Your task to perform on an android device: open app "Skype" (install if not already installed) and go to login screen Image 0: 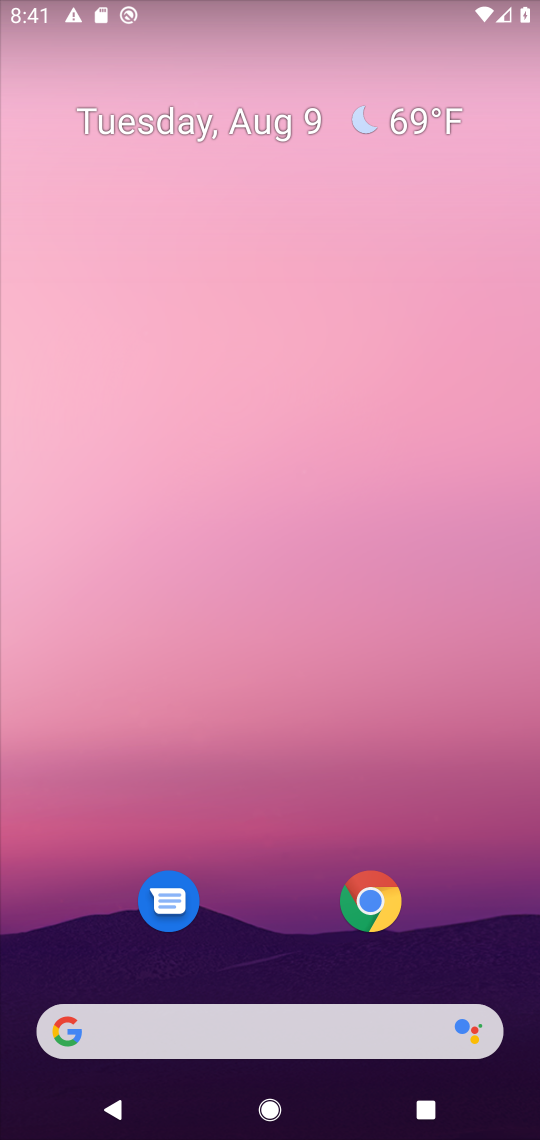
Step 0: drag from (207, 1029) to (338, 237)
Your task to perform on an android device: open app "Skype" (install if not already installed) and go to login screen Image 1: 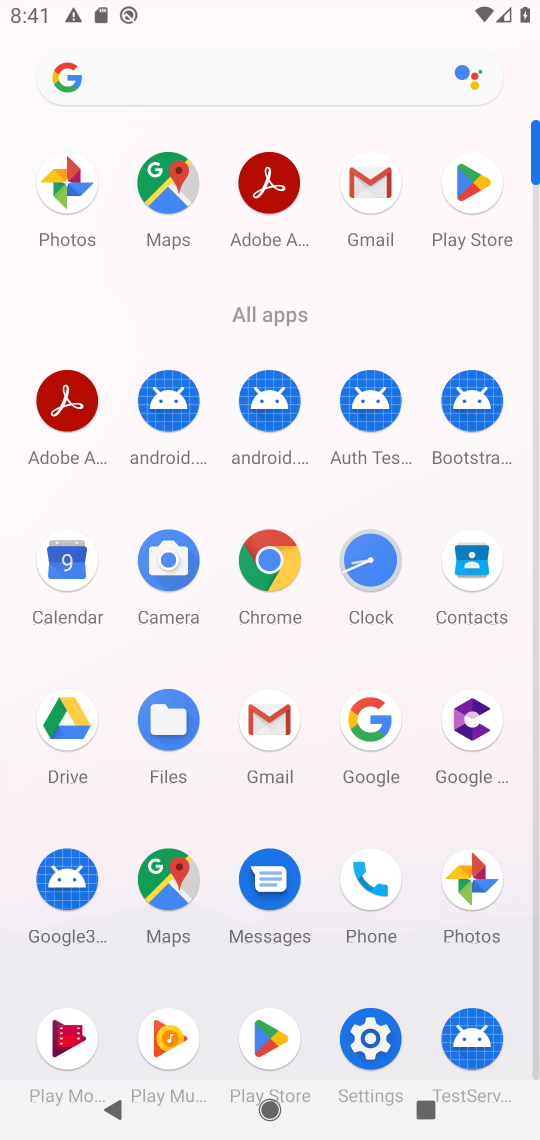
Step 1: click (268, 1028)
Your task to perform on an android device: open app "Skype" (install if not already installed) and go to login screen Image 2: 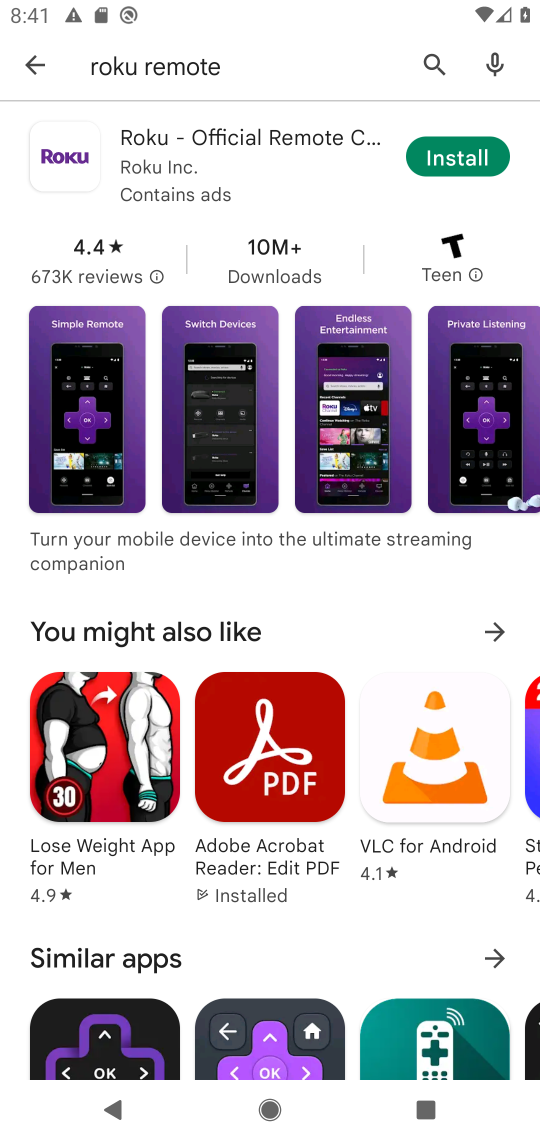
Step 2: click (36, 66)
Your task to perform on an android device: open app "Skype" (install if not already installed) and go to login screen Image 3: 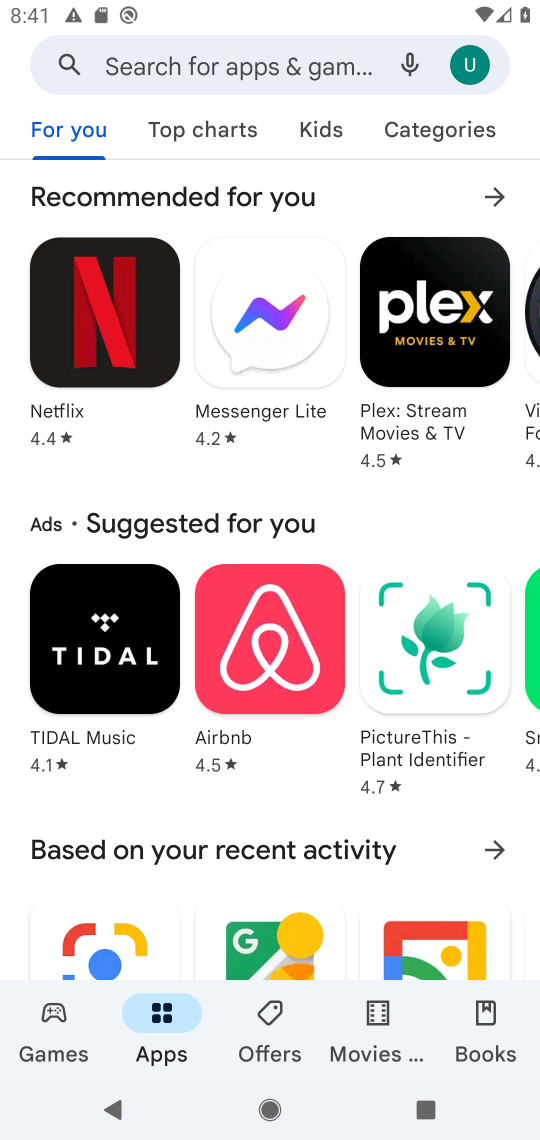
Step 3: click (334, 49)
Your task to perform on an android device: open app "Skype" (install if not already installed) and go to login screen Image 4: 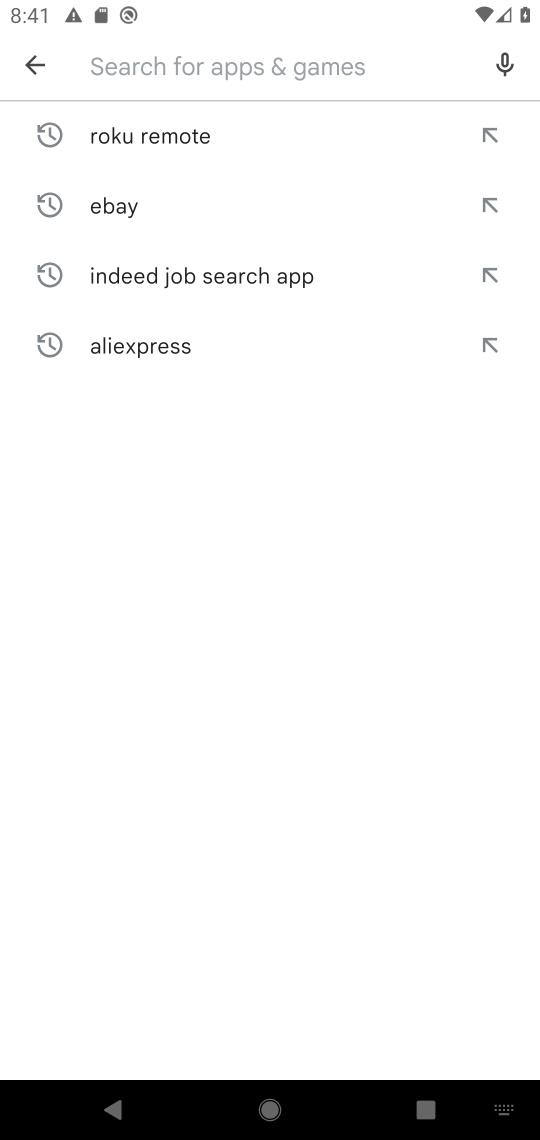
Step 4: type ""Skype"
Your task to perform on an android device: open app "Skype" (install if not already installed) and go to login screen Image 5: 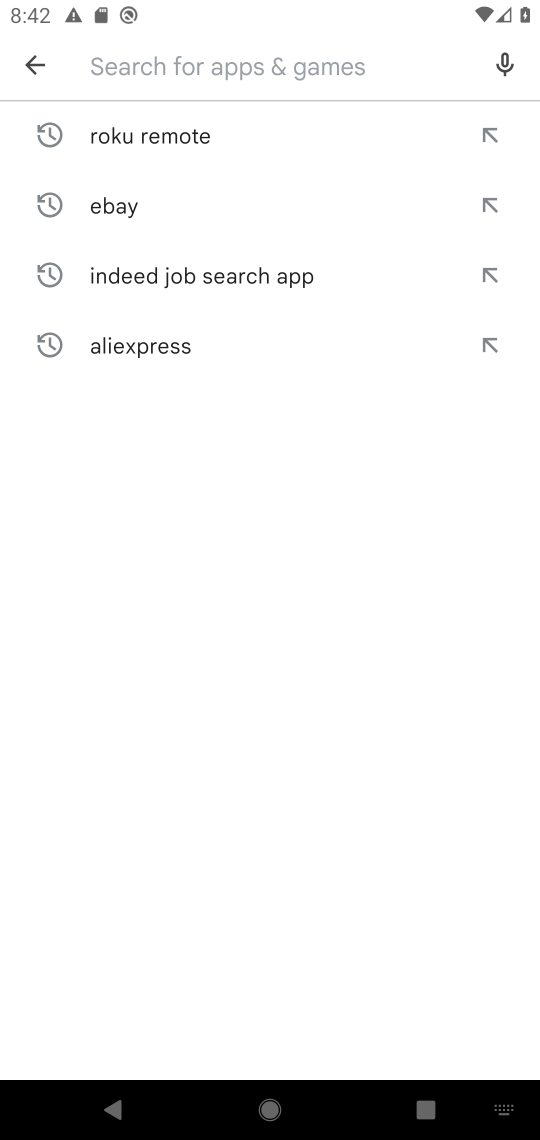
Step 5: click (331, 57)
Your task to perform on an android device: open app "Skype" (install if not already installed) and go to login screen Image 6: 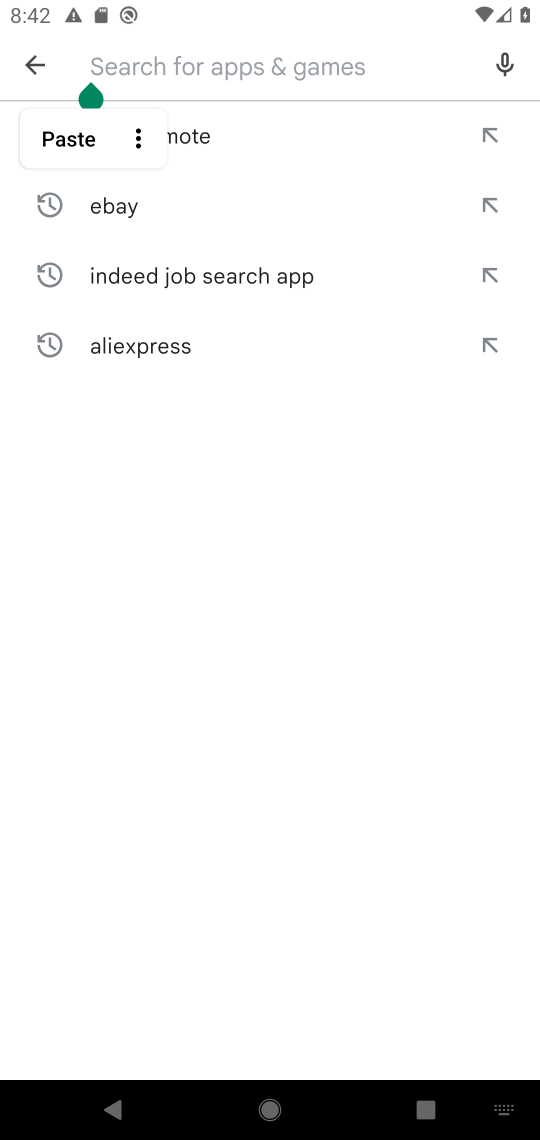
Step 6: type "Skype "
Your task to perform on an android device: open app "Skype" (install if not already installed) and go to login screen Image 7: 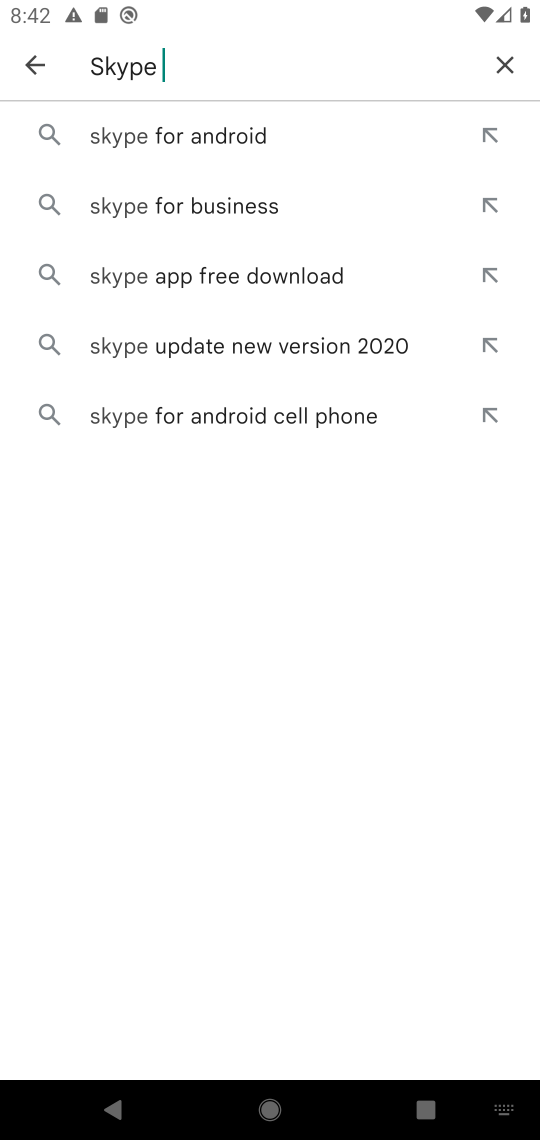
Step 7: click (199, 139)
Your task to perform on an android device: open app "Skype" (install if not already installed) and go to login screen Image 8: 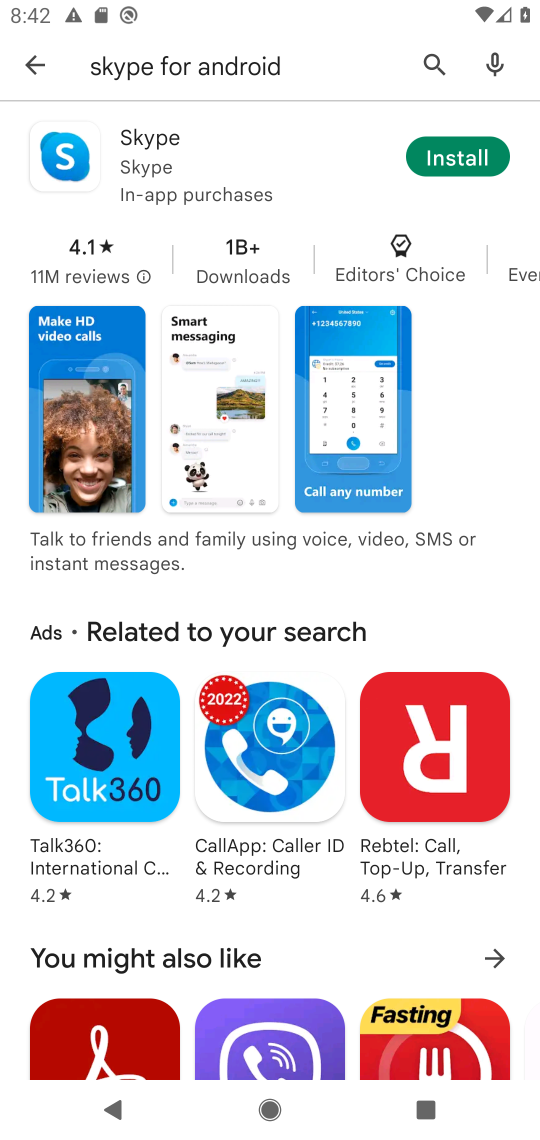
Step 8: click (455, 156)
Your task to perform on an android device: open app "Skype" (install if not already installed) and go to login screen Image 9: 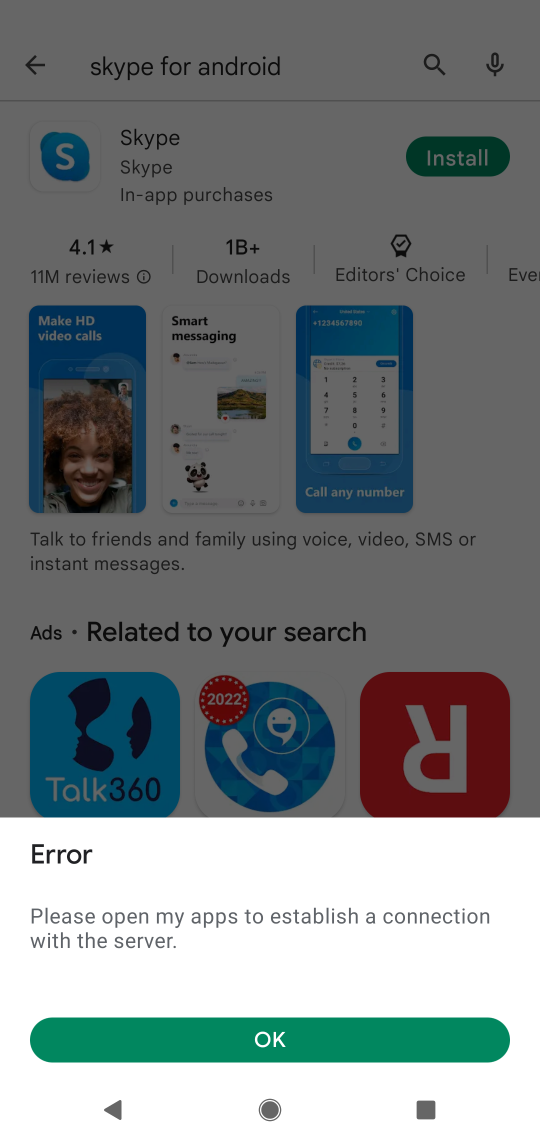
Step 9: click (326, 1030)
Your task to perform on an android device: open app "Skype" (install if not already installed) and go to login screen Image 10: 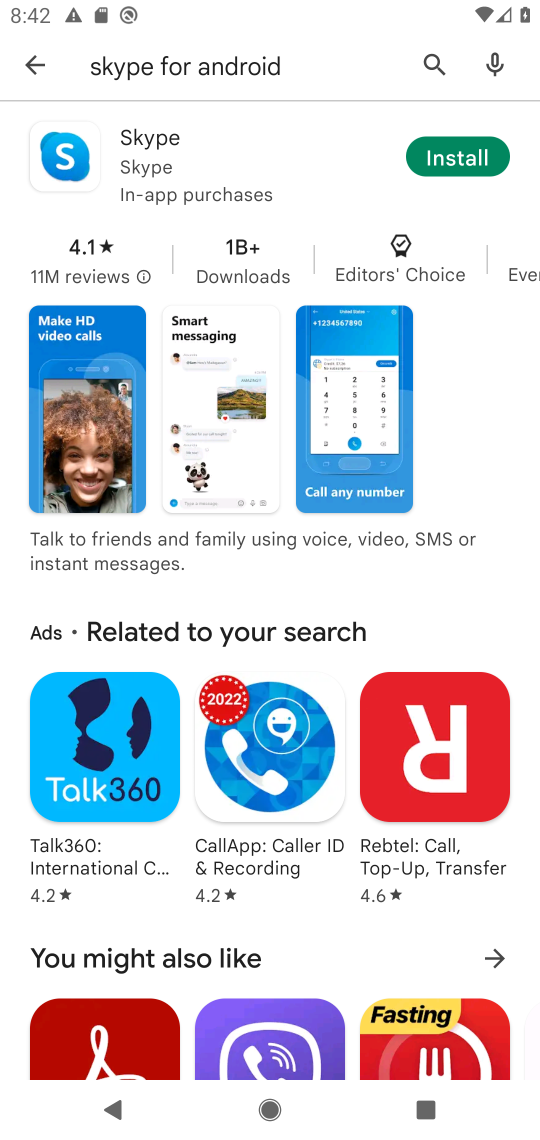
Step 10: click (435, 157)
Your task to perform on an android device: open app "Skype" (install if not already installed) and go to login screen Image 11: 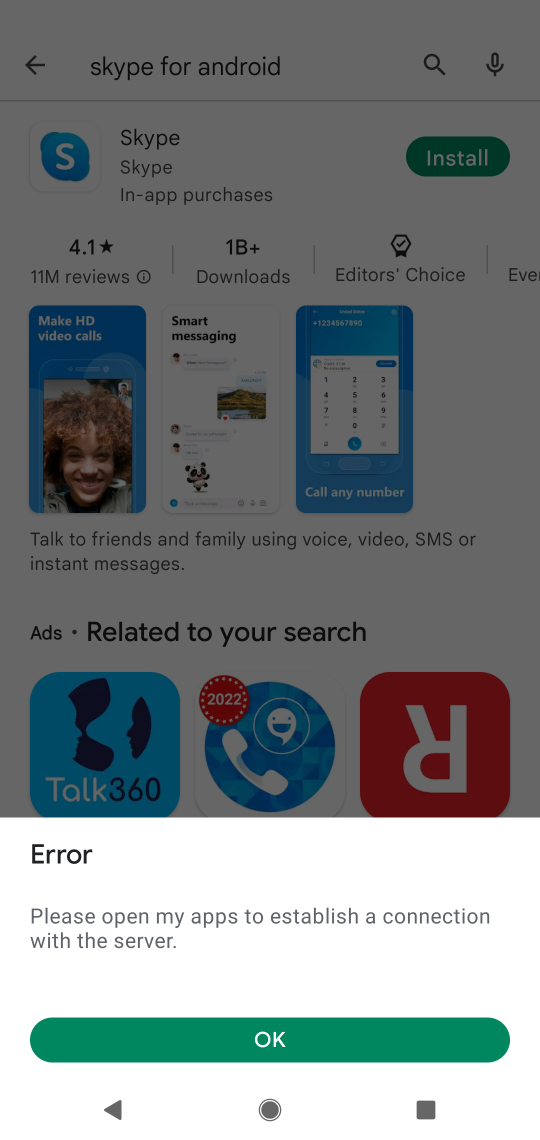
Step 11: task complete